Your task to perform on an android device: Search for the best burger restaurants on Maps Image 0: 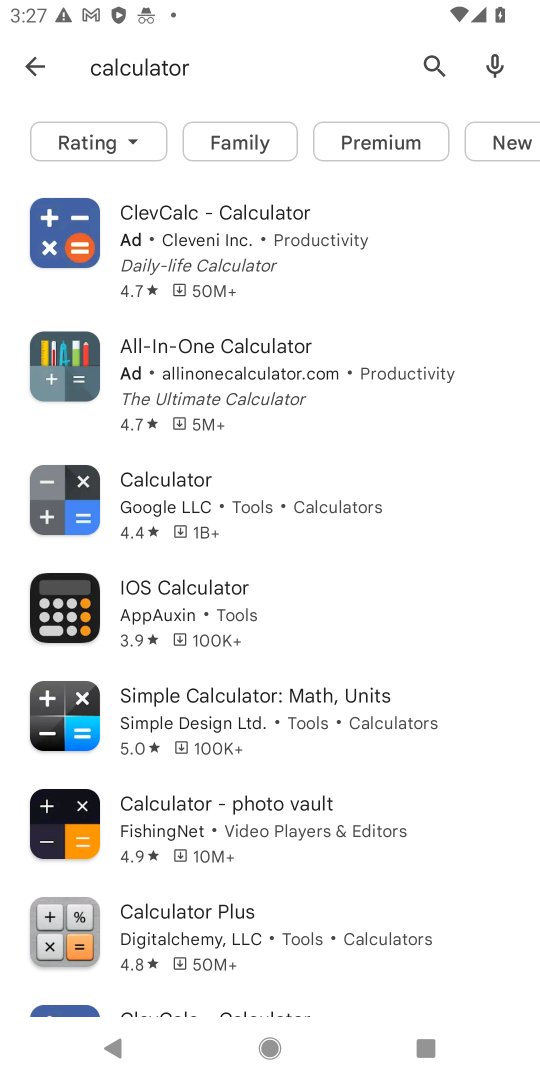
Step 0: press home button
Your task to perform on an android device: Search for the best burger restaurants on Maps Image 1: 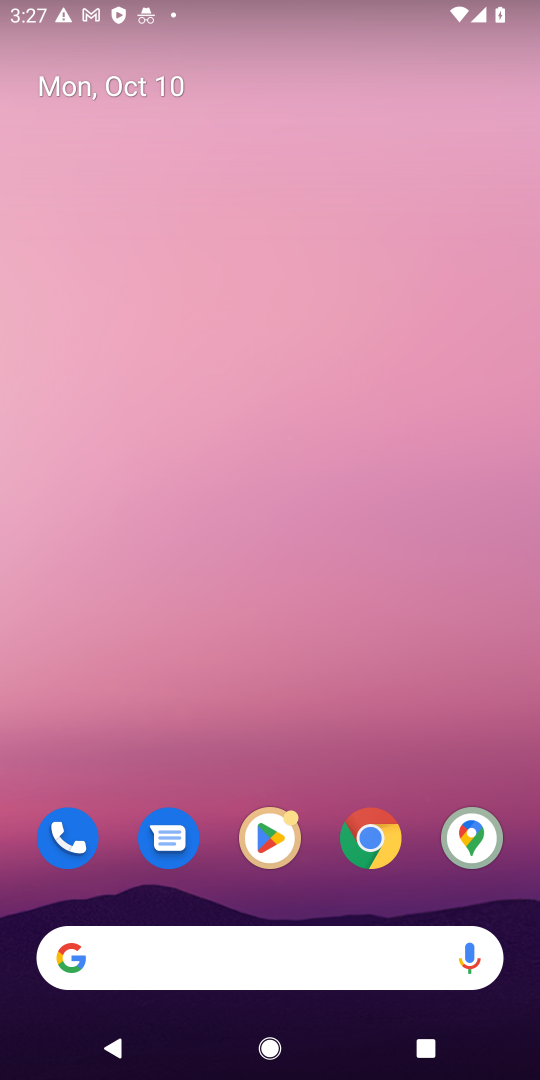
Step 1: drag from (319, 869) to (315, 461)
Your task to perform on an android device: Search for the best burger restaurants on Maps Image 2: 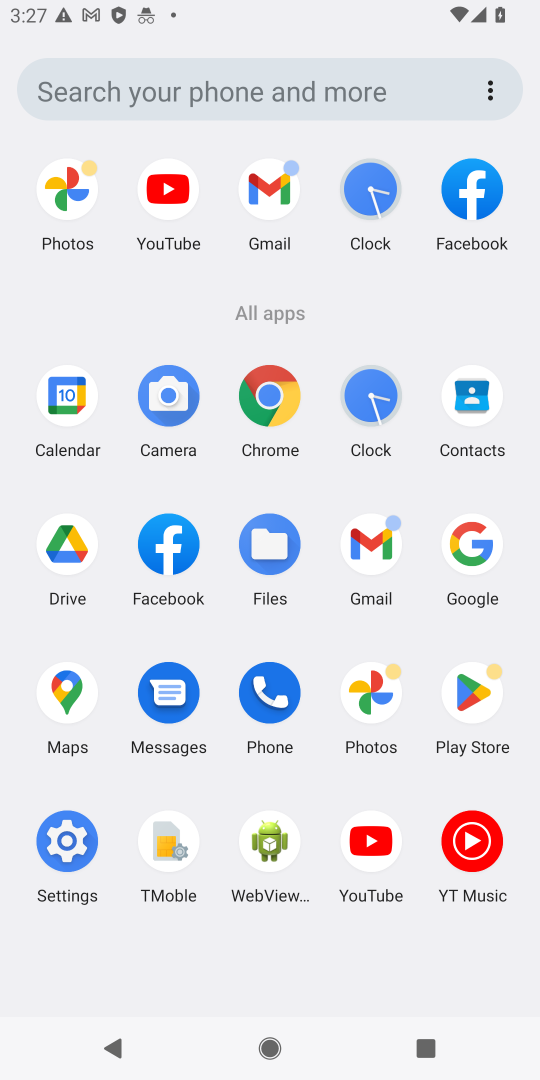
Step 2: click (60, 697)
Your task to perform on an android device: Search for the best burger restaurants on Maps Image 3: 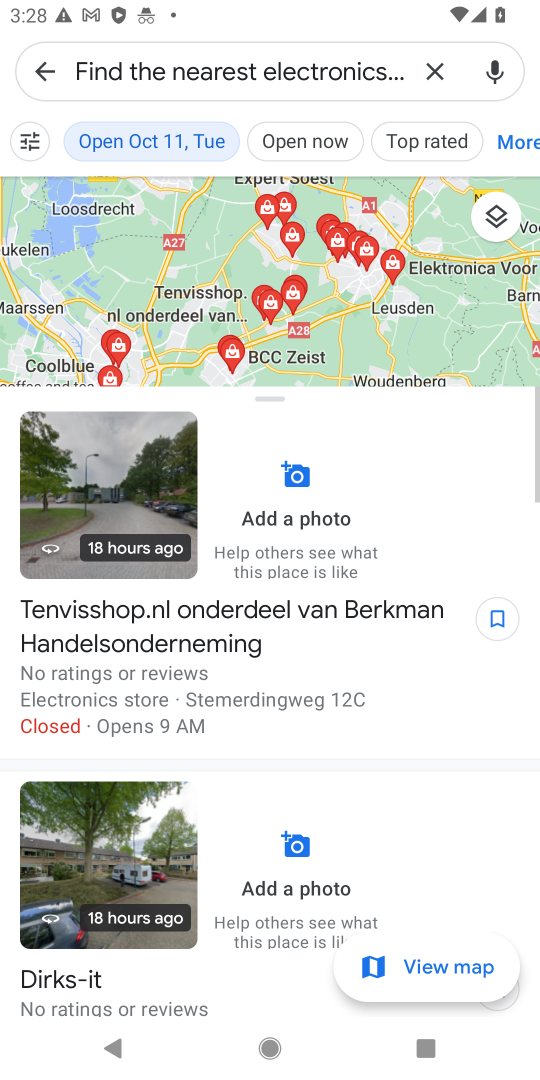
Step 3: click (432, 66)
Your task to perform on an android device: Search for the best burger restaurants on Maps Image 4: 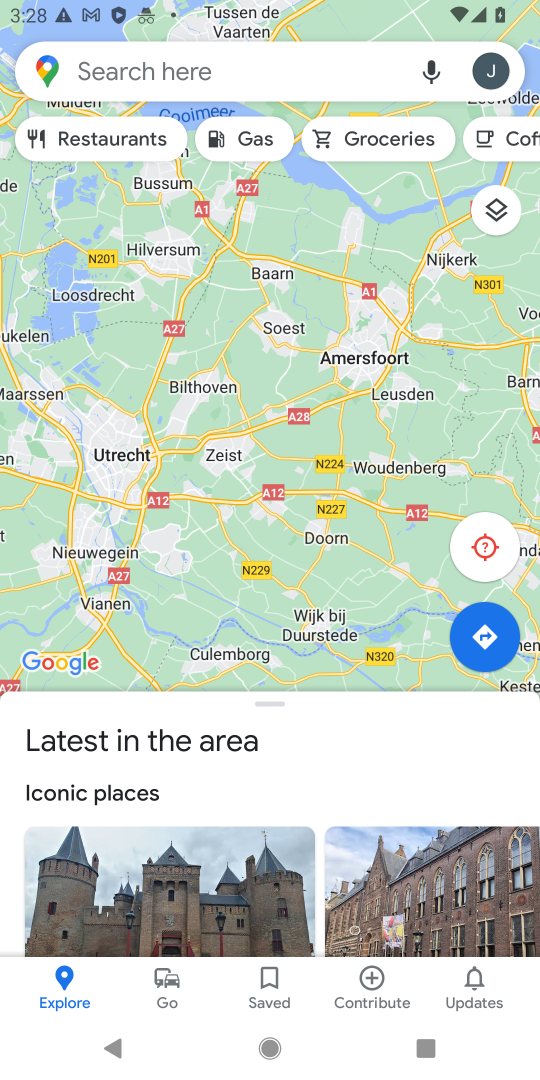
Step 4: click (288, 89)
Your task to perform on an android device: Search for the best burger restaurants on Maps Image 5: 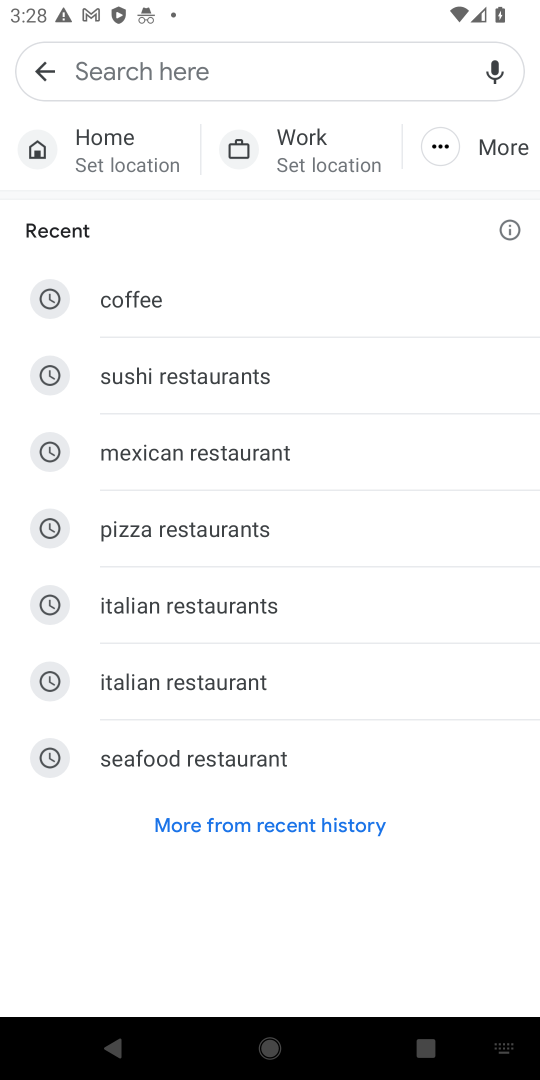
Step 5: type "best burger restaurants"
Your task to perform on an android device: Search for the best burger restaurants on Maps Image 6: 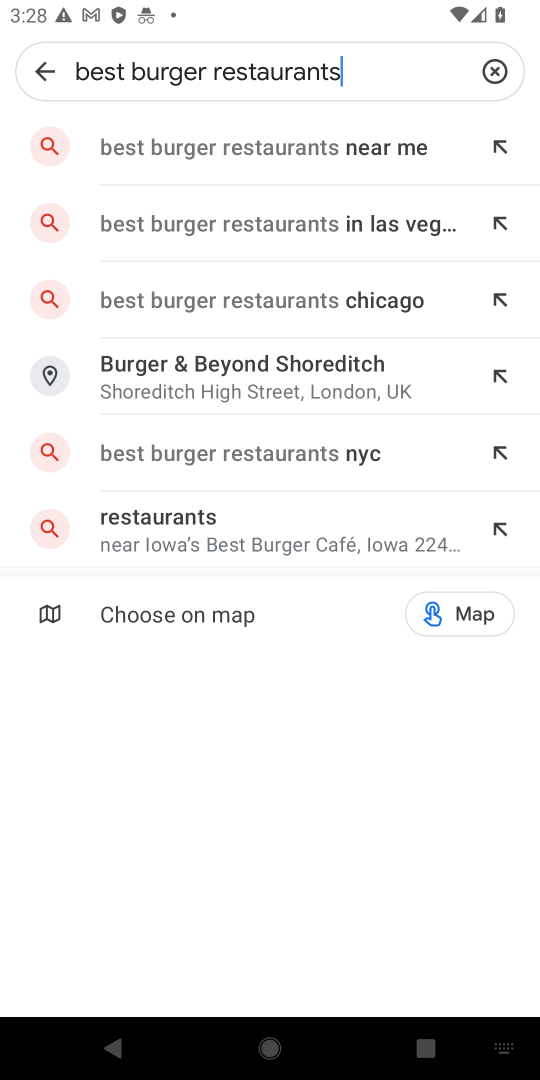
Step 6: click (266, 145)
Your task to perform on an android device: Search for the best burger restaurants on Maps Image 7: 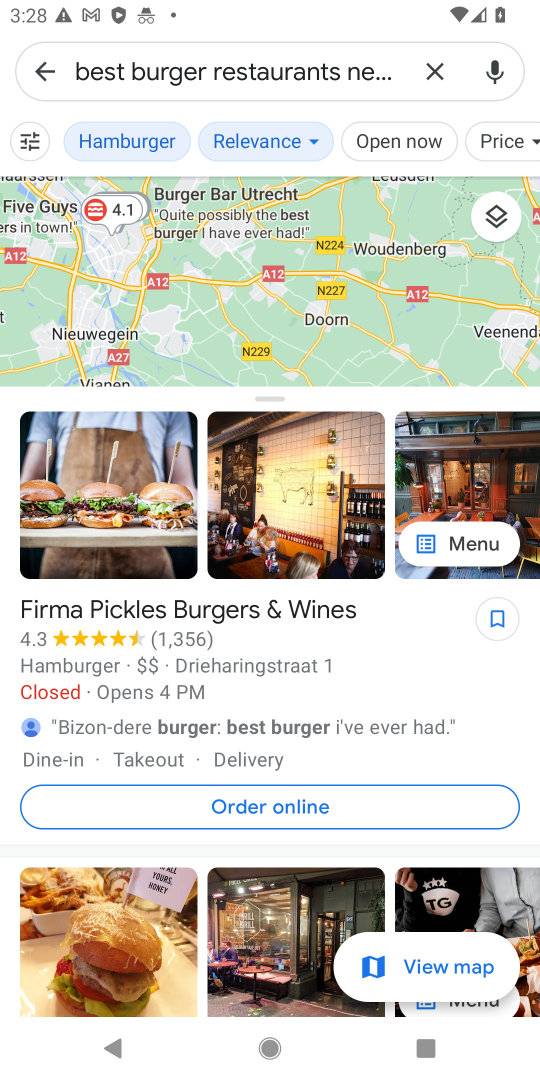
Step 7: task complete